Your task to perform on an android device: Empty the shopping cart on ebay.com. Image 0: 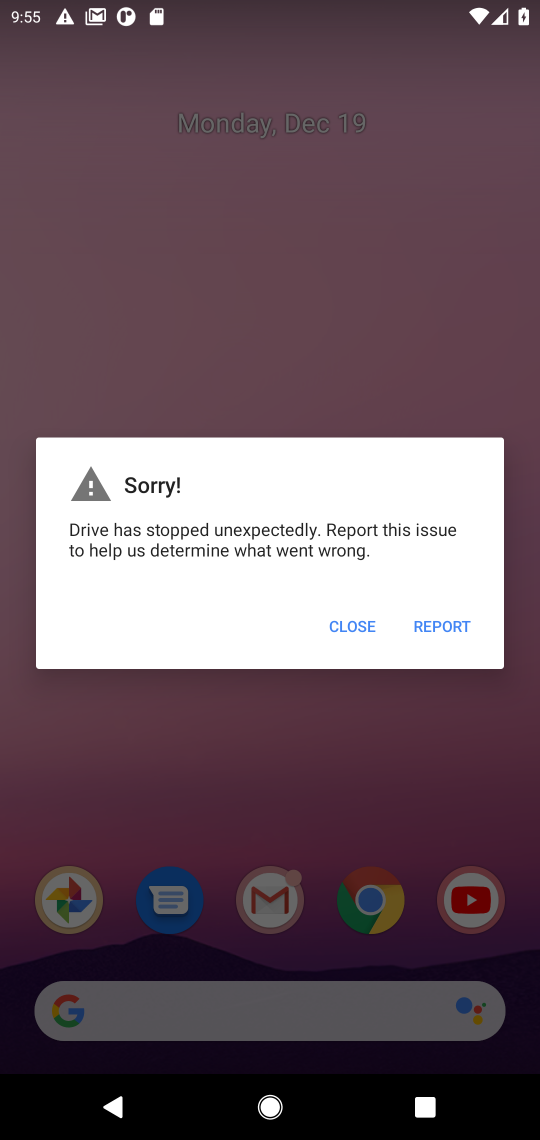
Step 0: click (344, 625)
Your task to perform on an android device: Empty the shopping cart on ebay.com. Image 1: 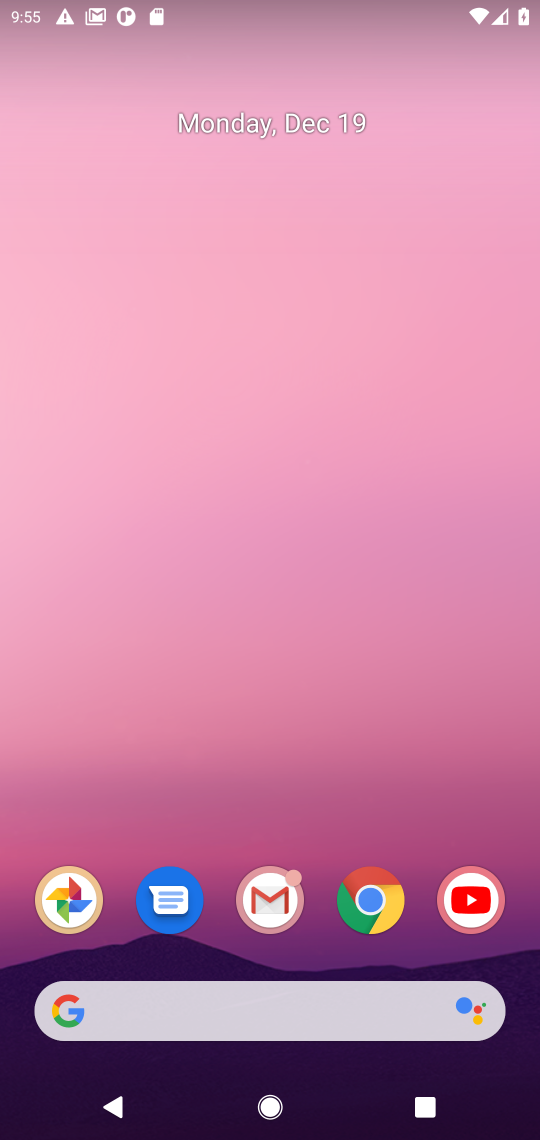
Step 1: click (371, 897)
Your task to perform on an android device: Empty the shopping cart on ebay.com. Image 2: 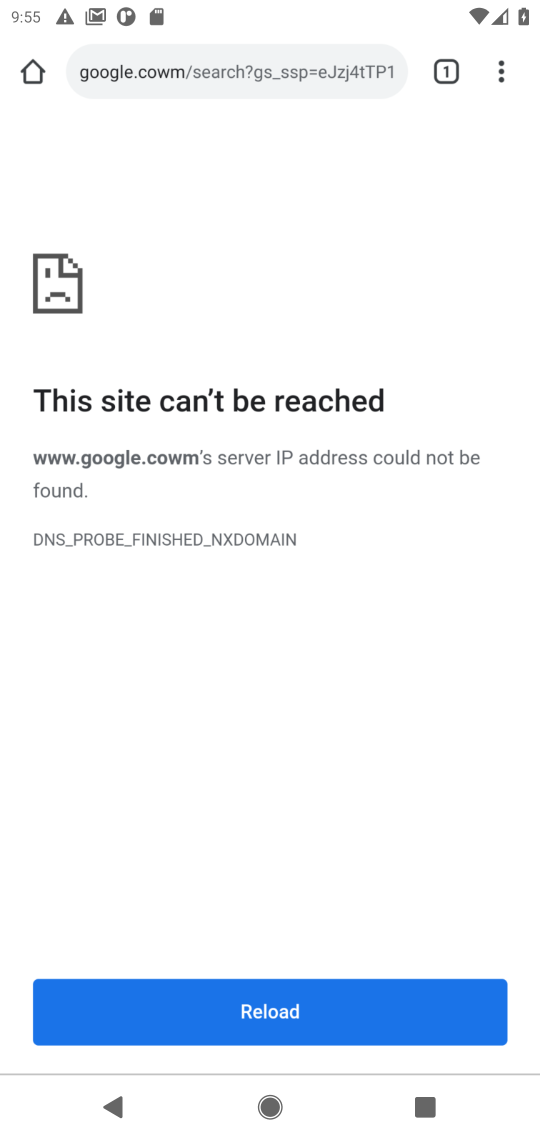
Step 2: click (221, 60)
Your task to perform on an android device: Empty the shopping cart on ebay.com. Image 3: 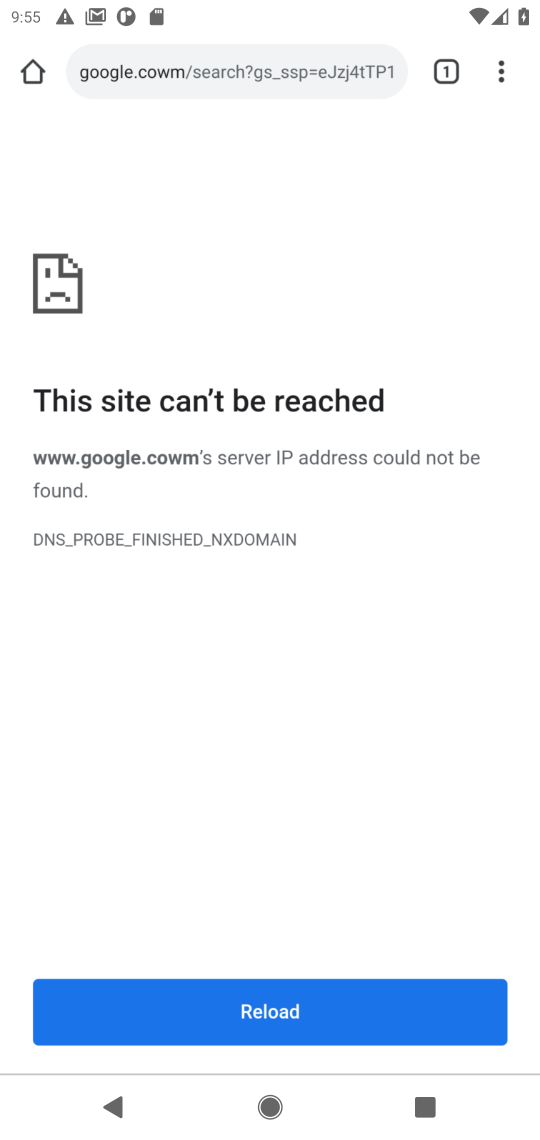
Step 3: click (363, 75)
Your task to perform on an android device: Empty the shopping cart on ebay.com. Image 4: 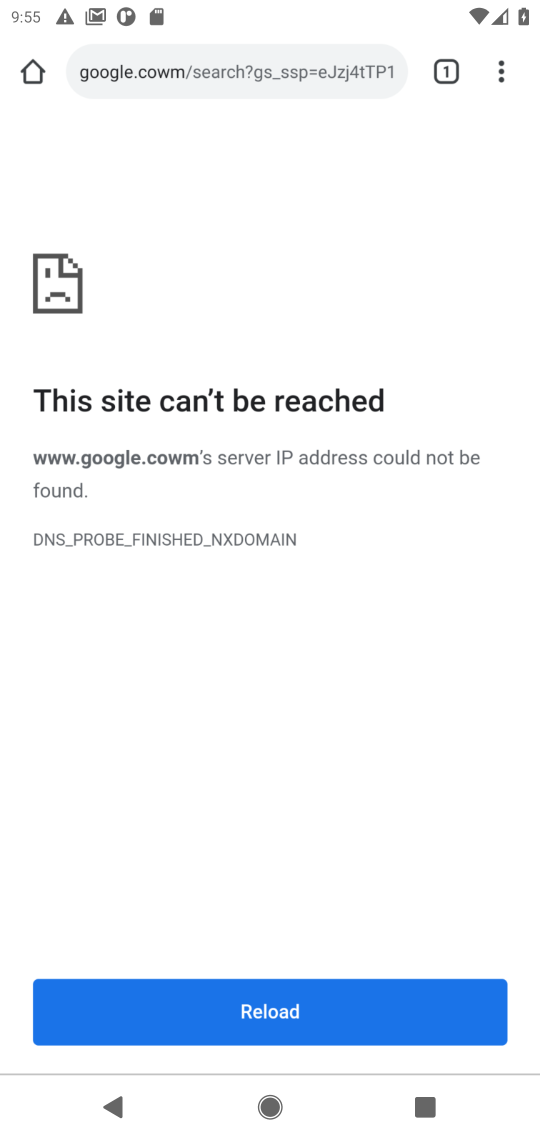
Step 4: type "ebay"
Your task to perform on an android device: Empty the shopping cart on ebay.com. Image 5: 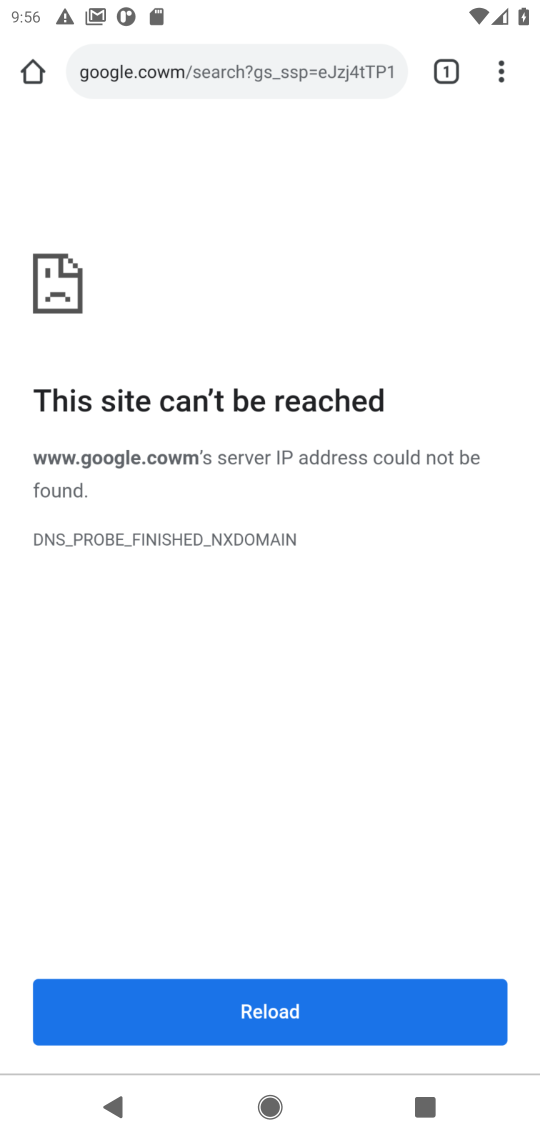
Step 5: click (299, 75)
Your task to perform on an android device: Empty the shopping cart on ebay.com. Image 6: 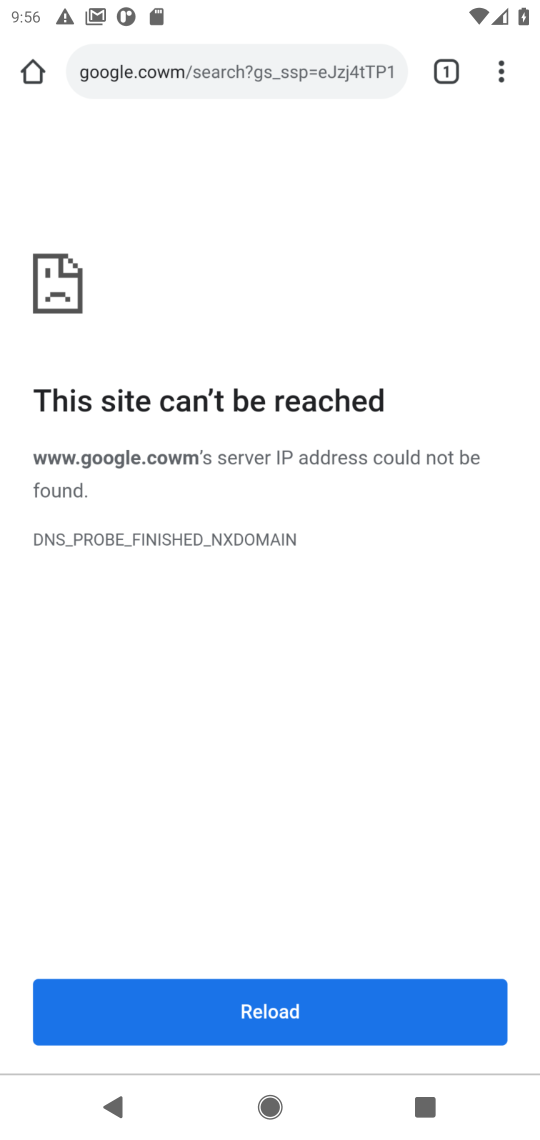
Step 6: press home button
Your task to perform on an android device: Empty the shopping cart on ebay.com. Image 7: 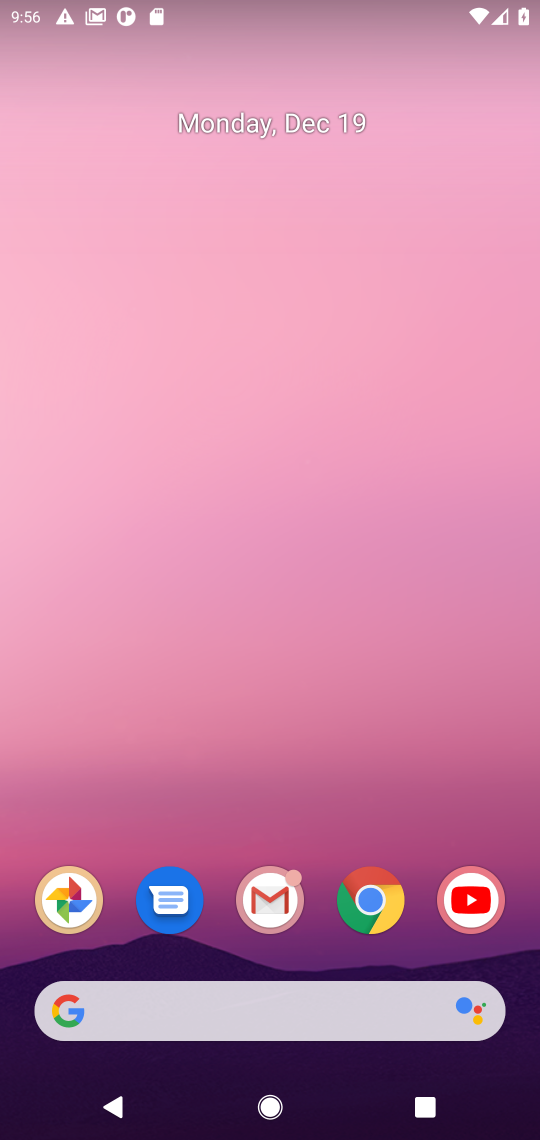
Step 7: click (65, 1005)
Your task to perform on an android device: Empty the shopping cart on ebay.com. Image 8: 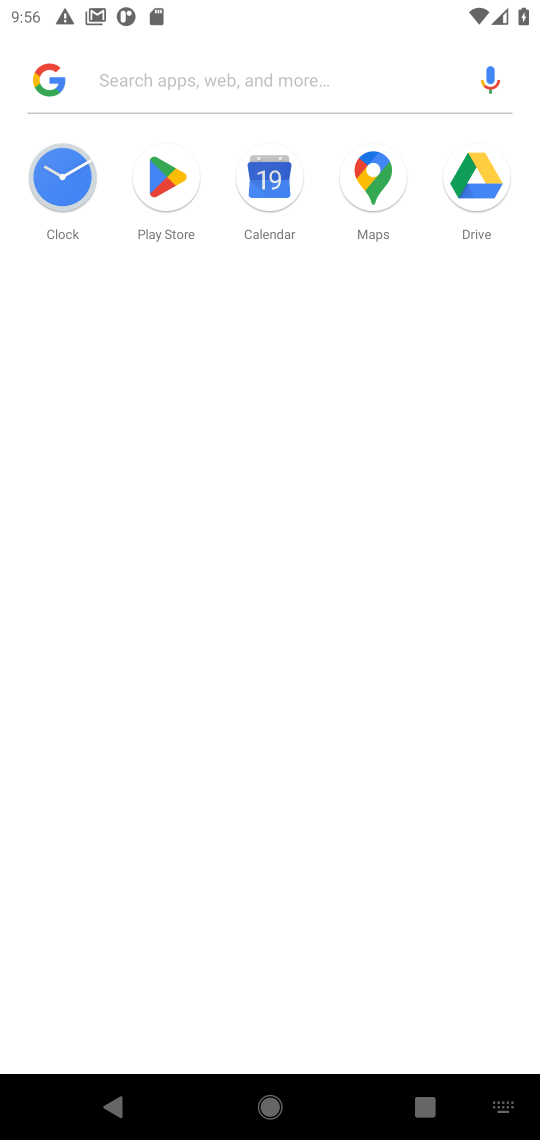
Step 8: type "ebay"
Your task to perform on an android device: Empty the shopping cart on ebay.com. Image 9: 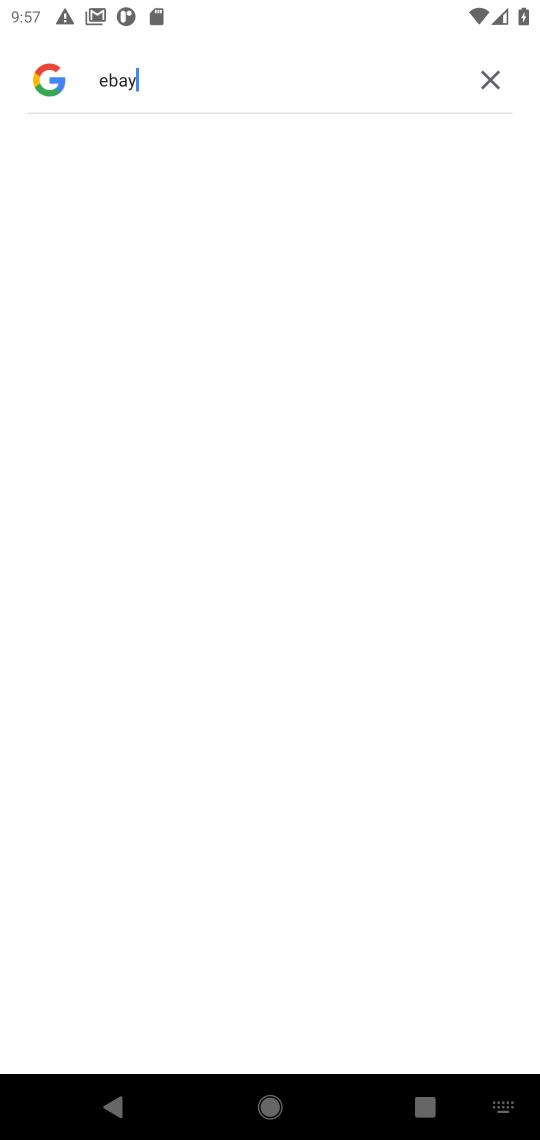
Step 9: task complete